Your task to perform on an android device: Show me productivity apps on the Play Store Image 0: 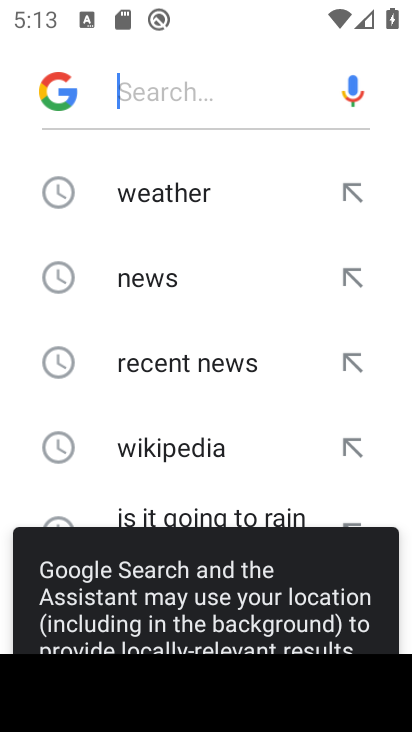
Step 0: press home button
Your task to perform on an android device: Show me productivity apps on the Play Store Image 1: 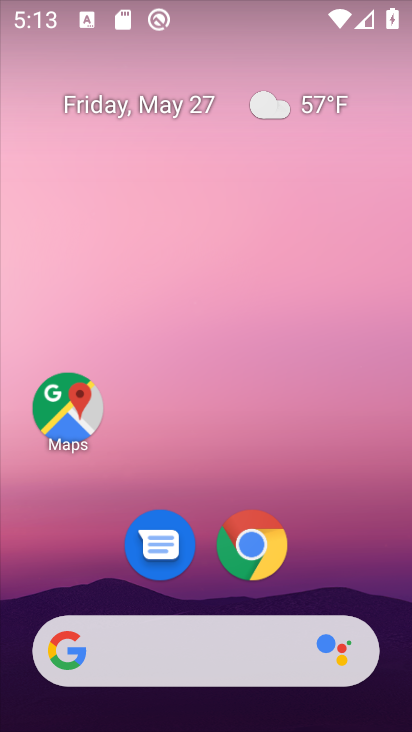
Step 1: drag from (390, 705) to (359, 249)
Your task to perform on an android device: Show me productivity apps on the Play Store Image 2: 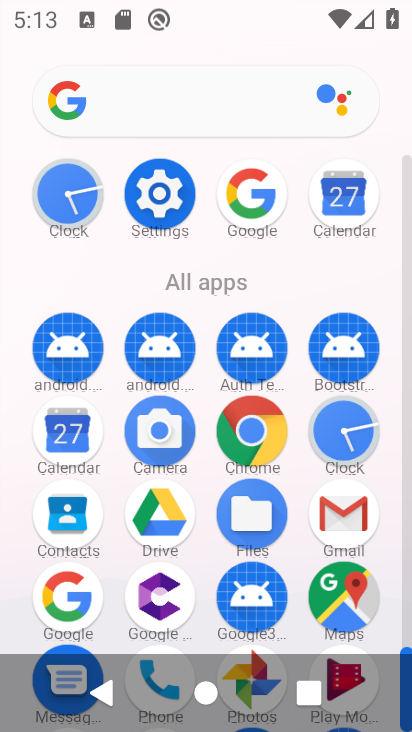
Step 2: drag from (205, 621) to (186, 291)
Your task to perform on an android device: Show me productivity apps on the Play Store Image 3: 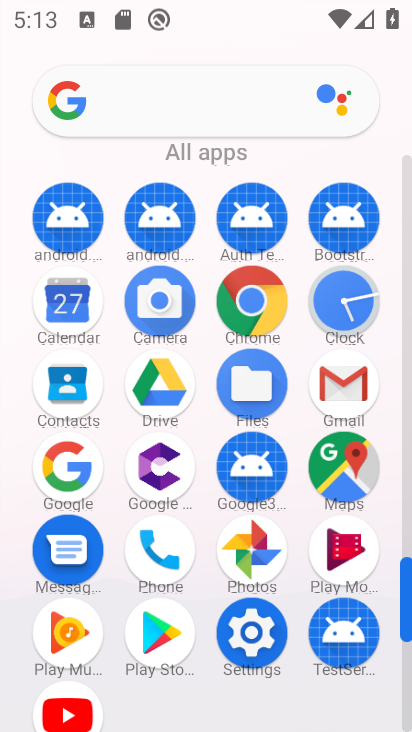
Step 3: click (156, 628)
Your task to perform on an android device: Show me productivity apps on the Play Store Image 4: 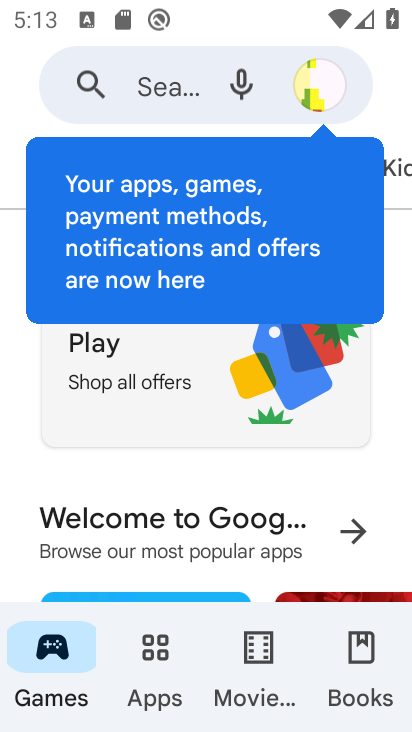
Step 4: click (198, 92)
Your task to perform on an android device: Show me productivity apps on the Play Store Image 5: 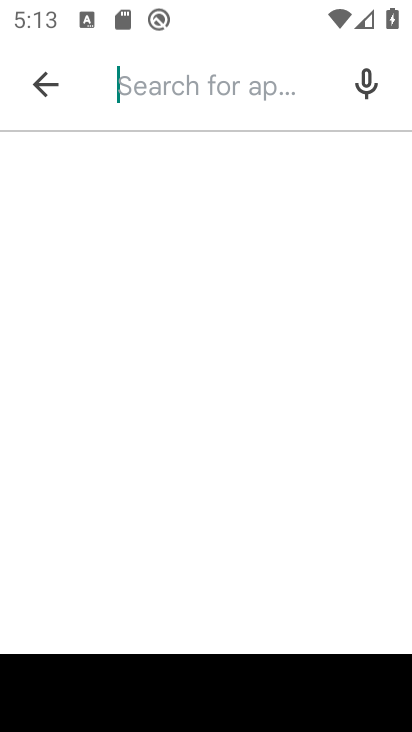
Step 5: type "productivity apps"
Your task to perform on an android device: Show me productivity apps on the Play Store Image 6: 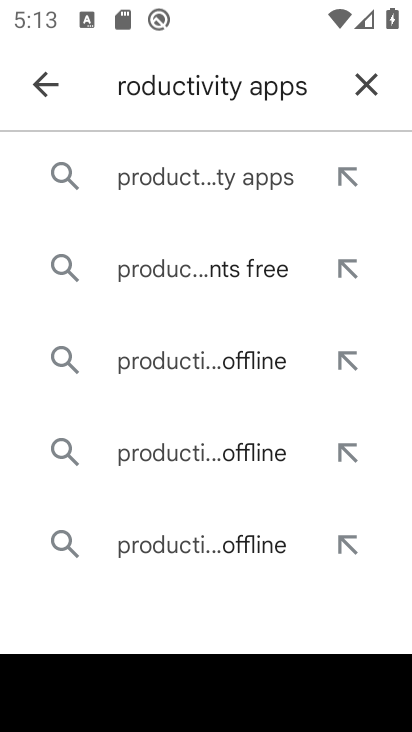
Step 6: click (157, 181)
Your task to perform on an android device: Show me productivity apps on the Play Store Image 7: 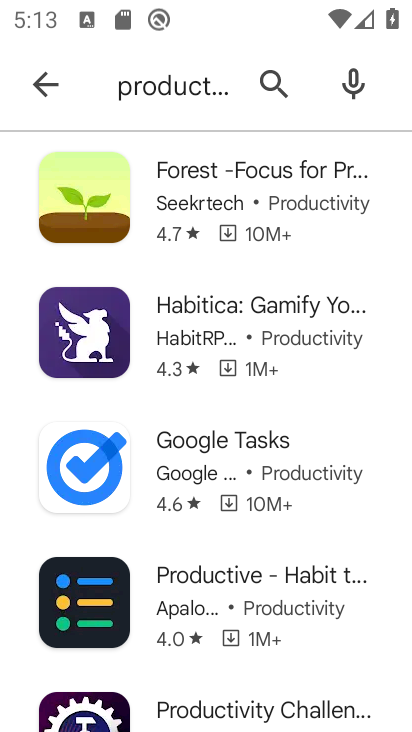
Step 7: task complete